Your task to perform on an android device: install app "Adobe Acrobat Reader: Edit PDF" Image 0: 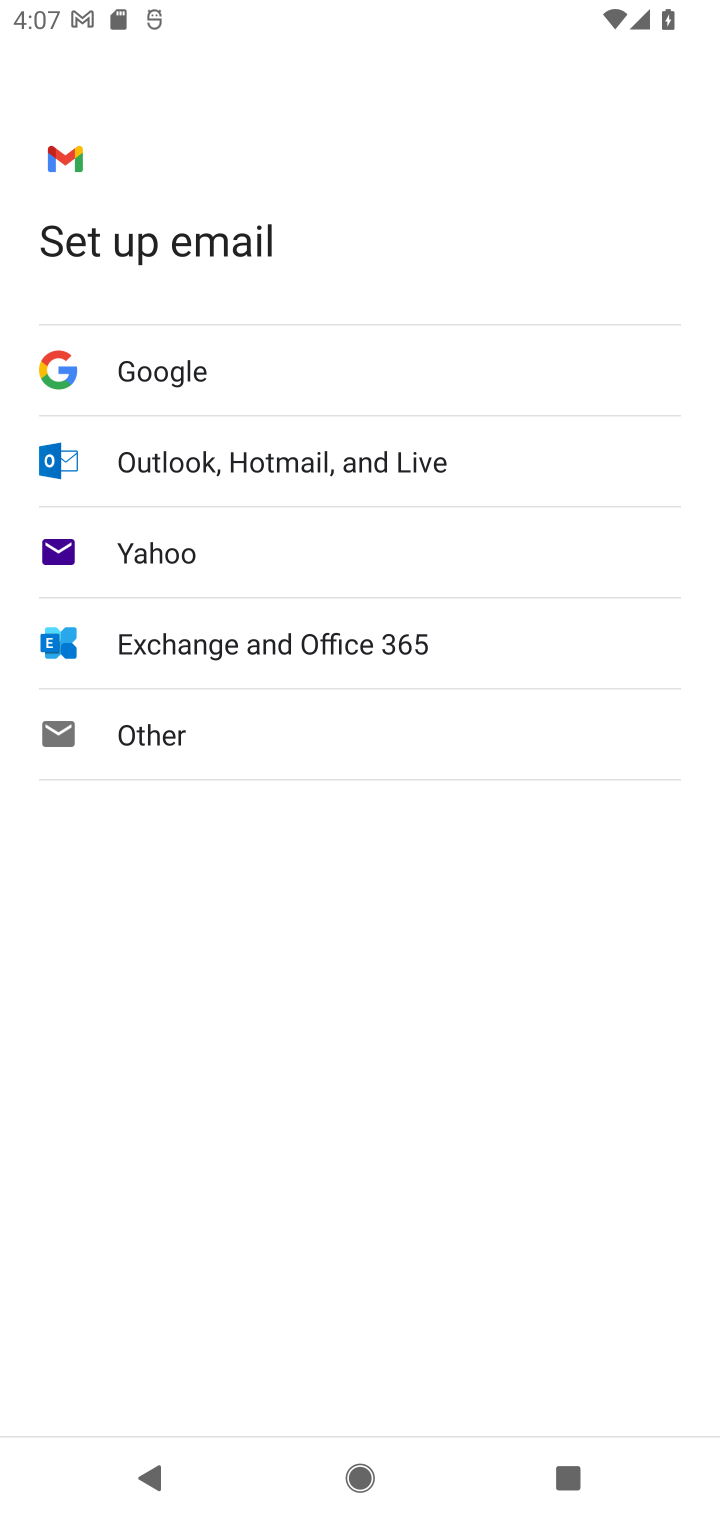
Step 0: press home button
Your task to perform on an android device: install app "Adobe Acrobat Reader: Edit PDF" Image 1: 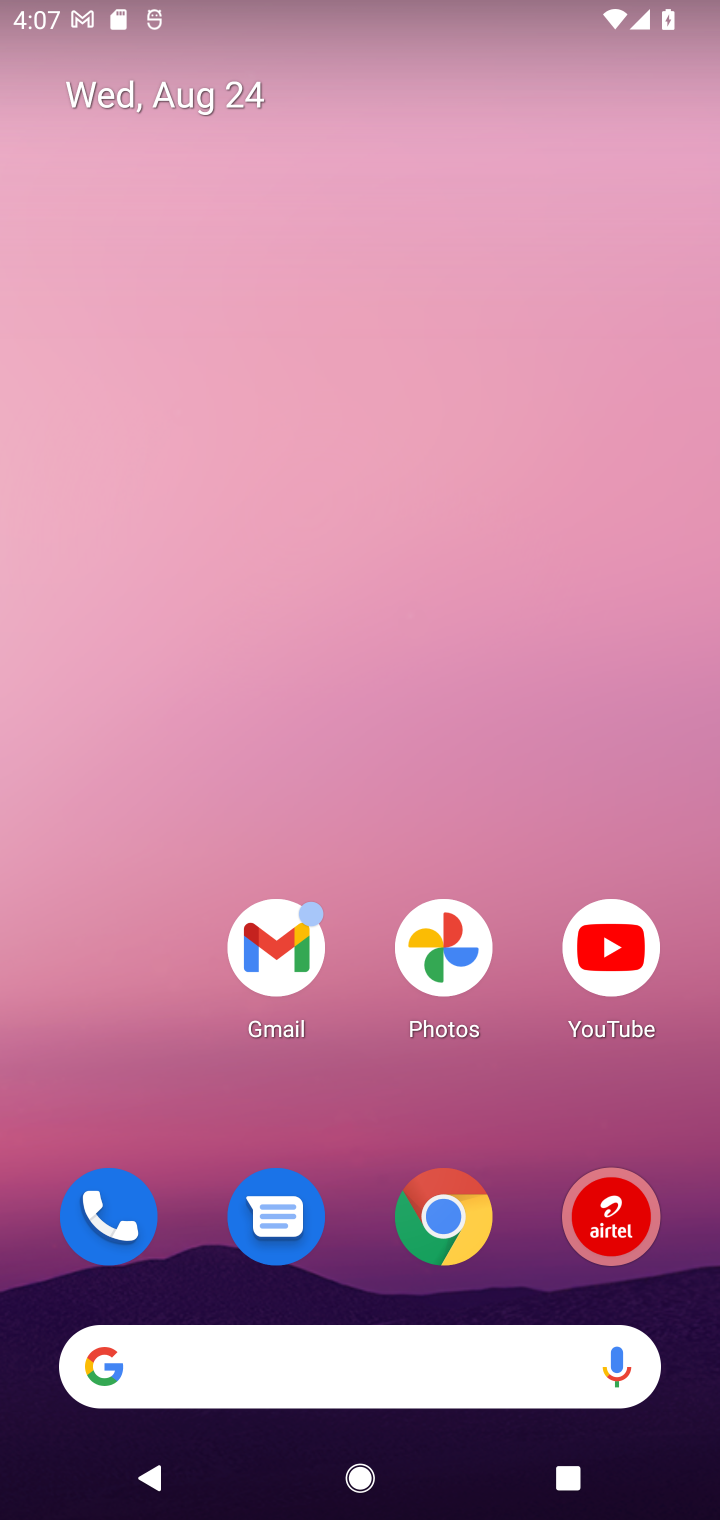
Step 1: drag from (342, 987) to (411, 193)
Your task to perform on an android device: install app "Adobe Acrobat Reader: Edit PDF" Image 2: 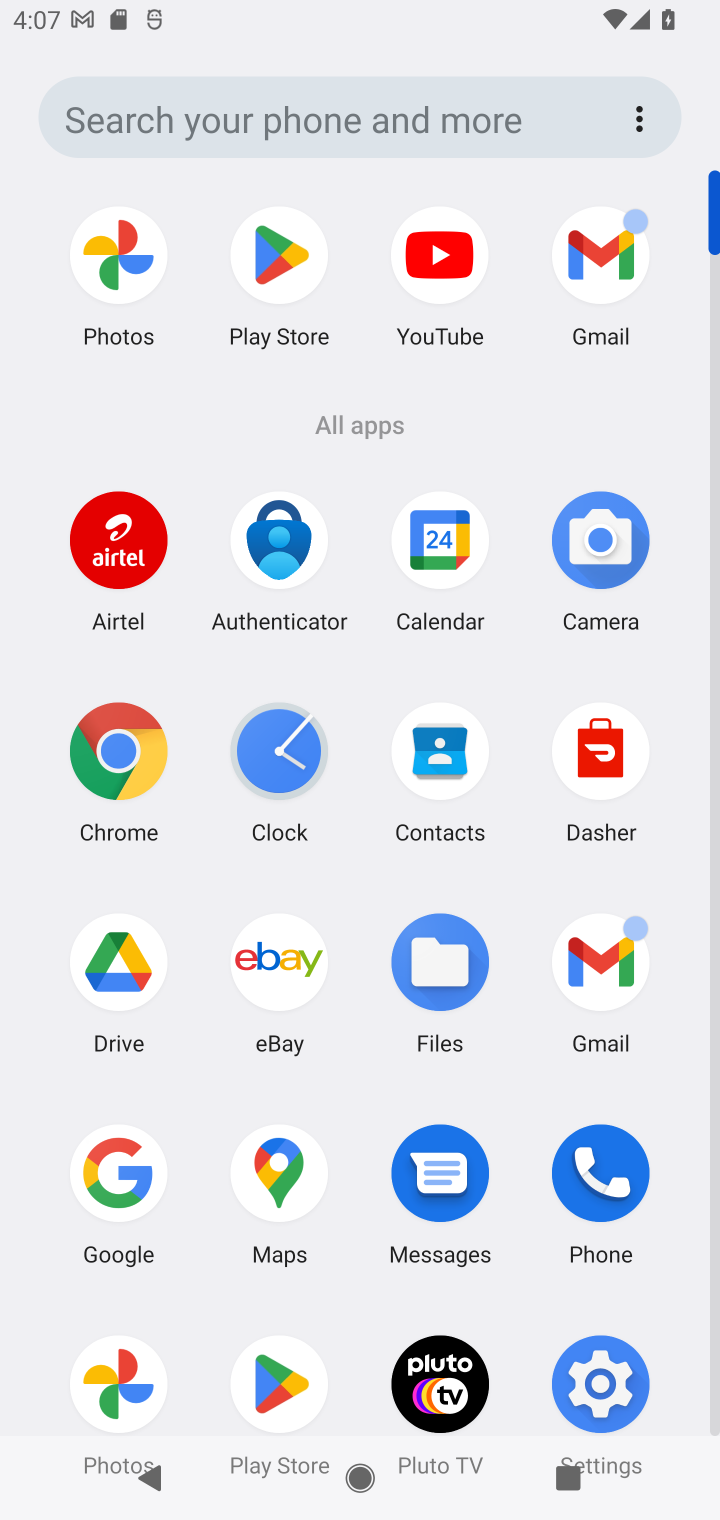
Step 2: click (306, 242)
Your task to perform on an android device: install app "Adobe Acrobat Reader: Edit PDF" Image 3: 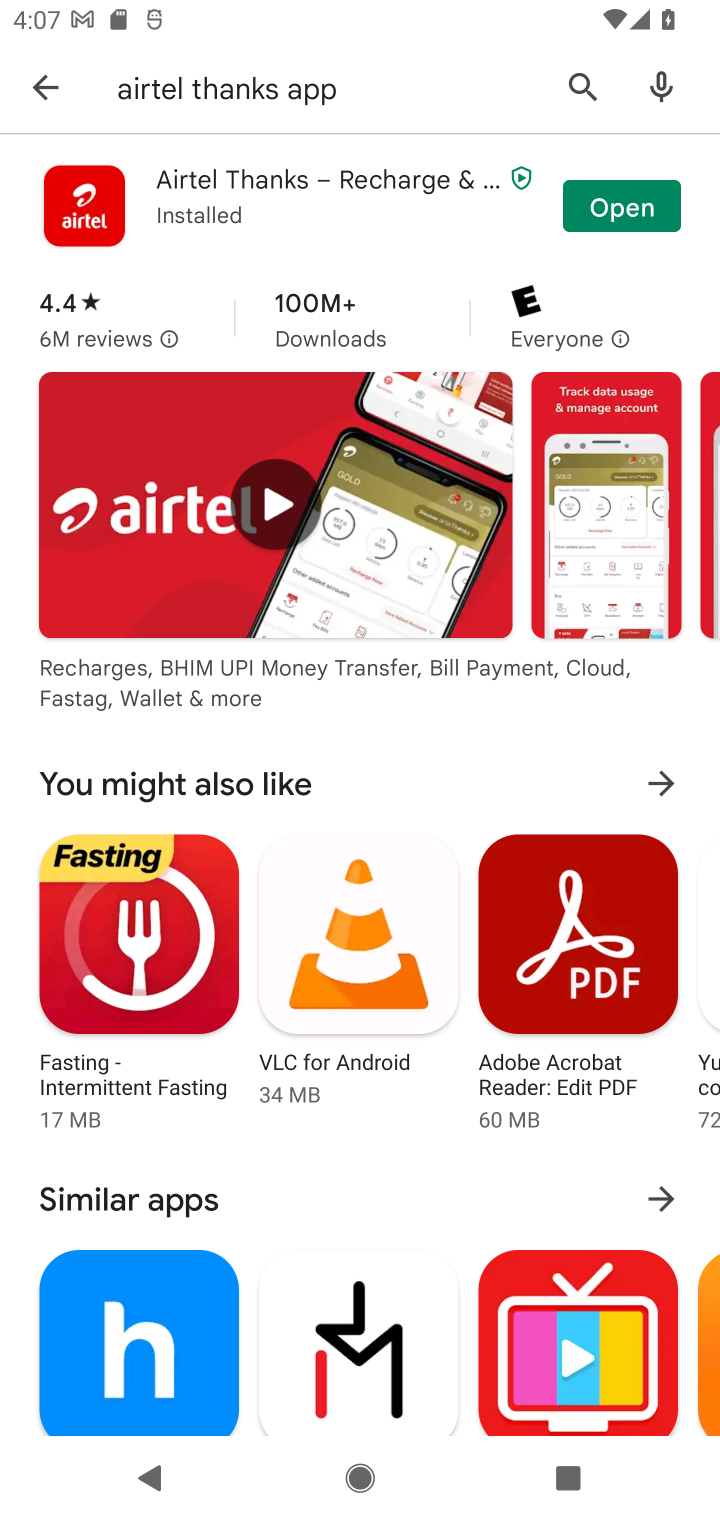
Step 3: click (593, 72)
Your task to perform on an android device: install app "Adobe Acrobat Reader: Edit PDF" Image 4: 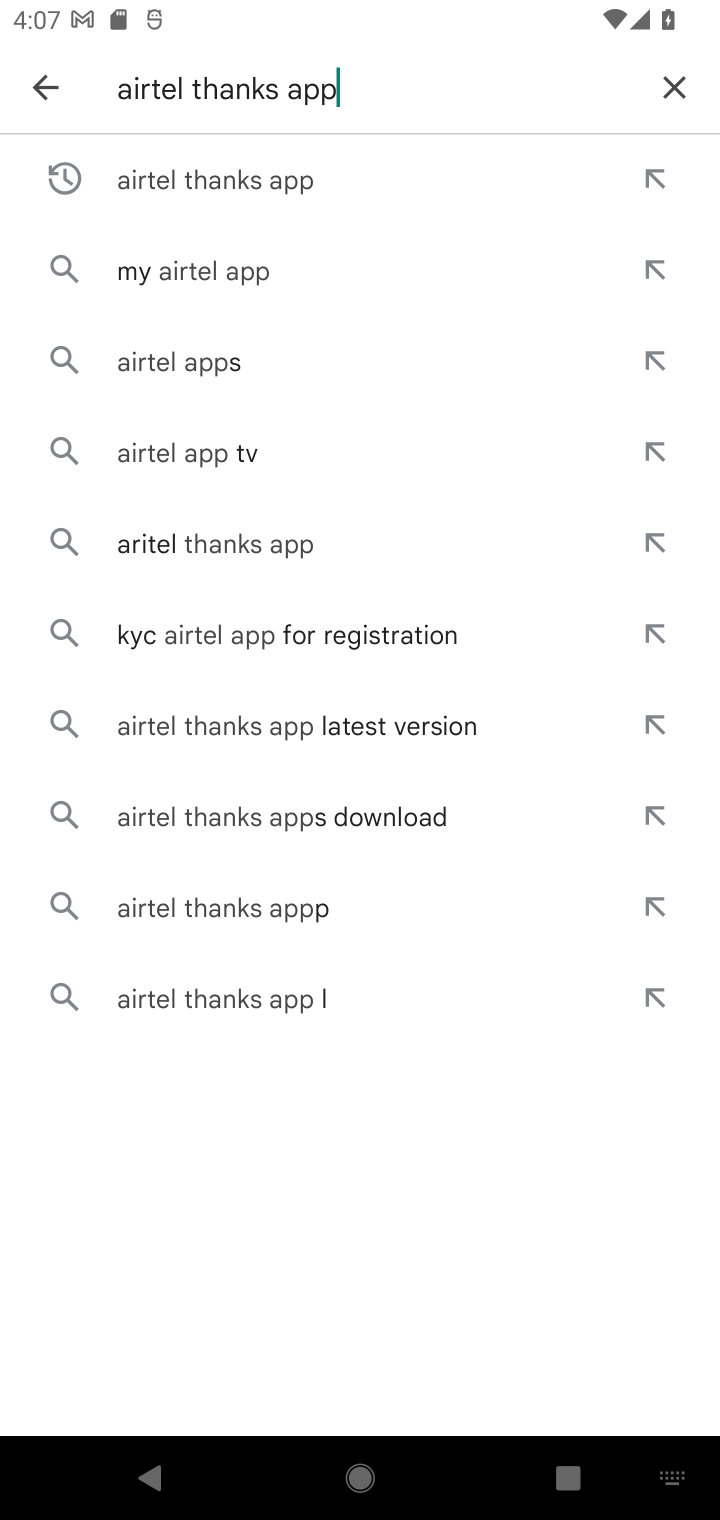
Step 4: click (652, 79)
Your task to perform on an android device: install app "Adobe Acrobat Reader: Edit PDF" Image 5: 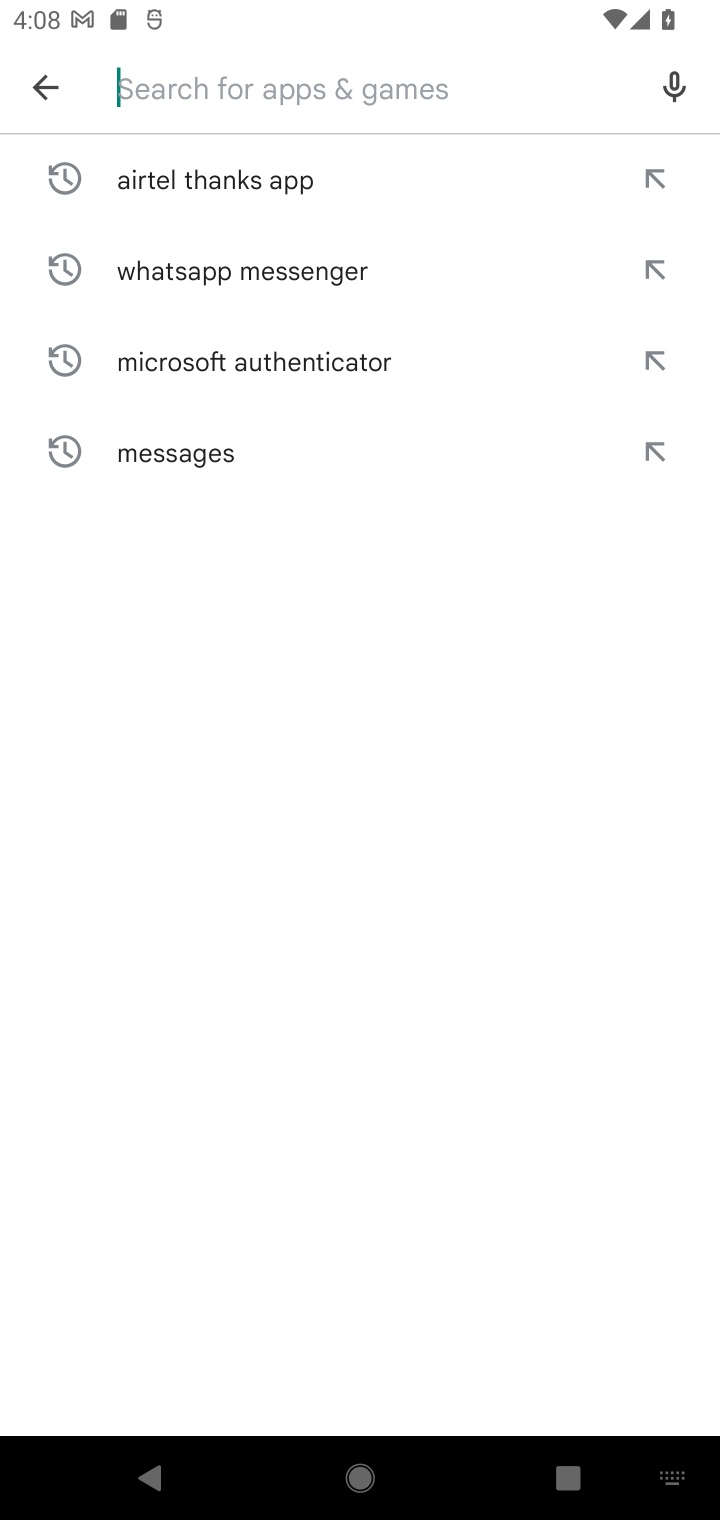
Step 5: type "Adobe Acrobat Reader: Edit PDF"
Your task to perform on an android device: install app "Adobe Acrobat Reader: Edit PDF" Image 6: 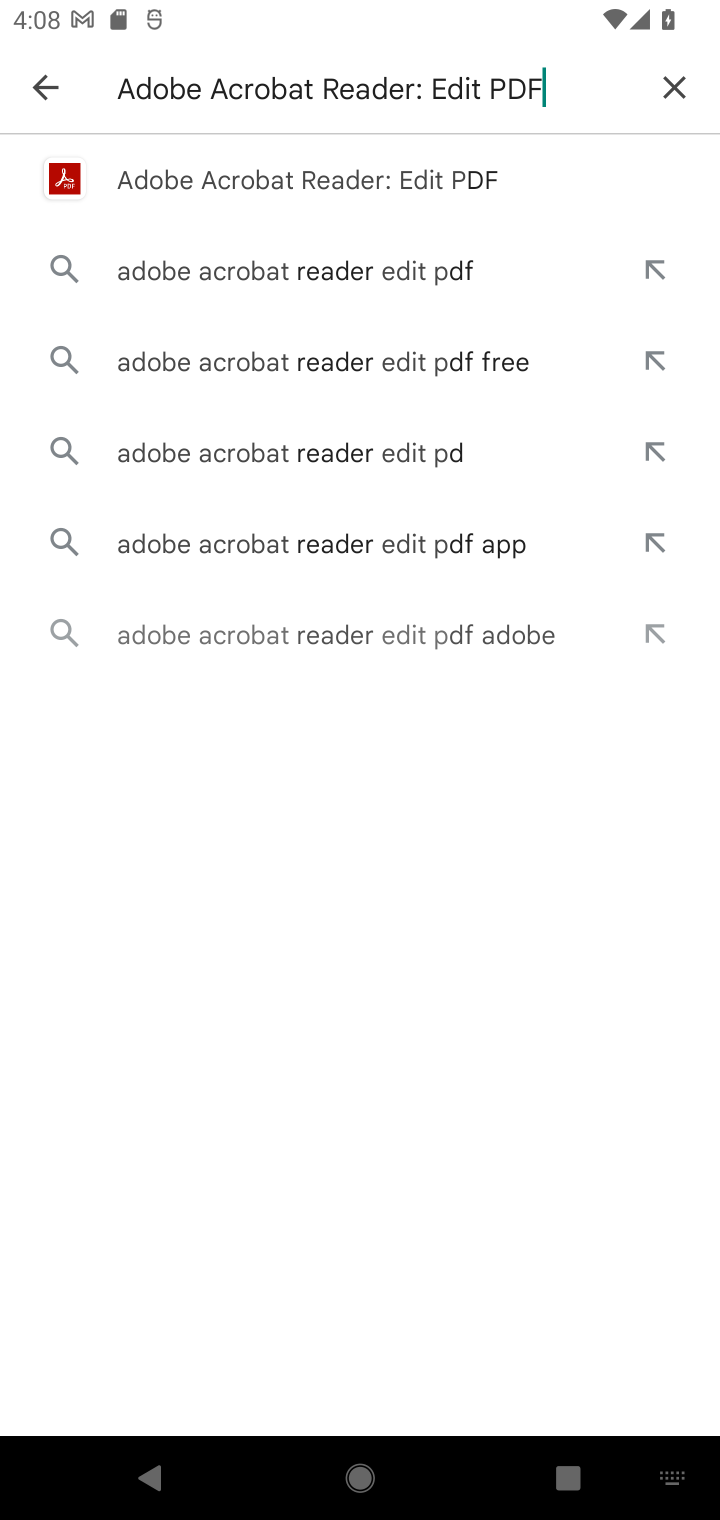
Step 6: type ""
Your task to perform on an android device: install app "Adobe Acrobat Reader: Edit PDF" Image 7: 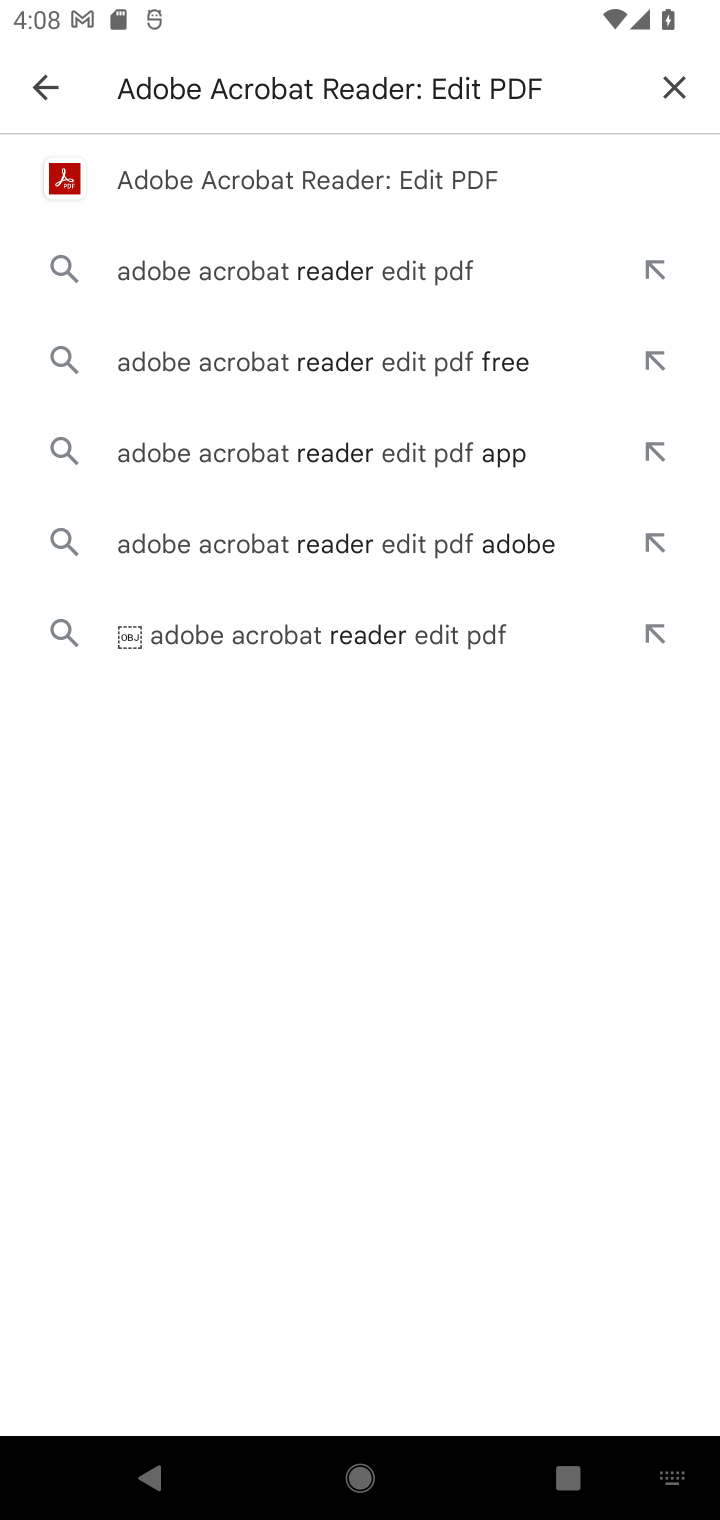
Step 7: click (283, 178)
Your task to perform on an android device: install app "Adobe Acrobat Reader: Edit PDF" Image 8: 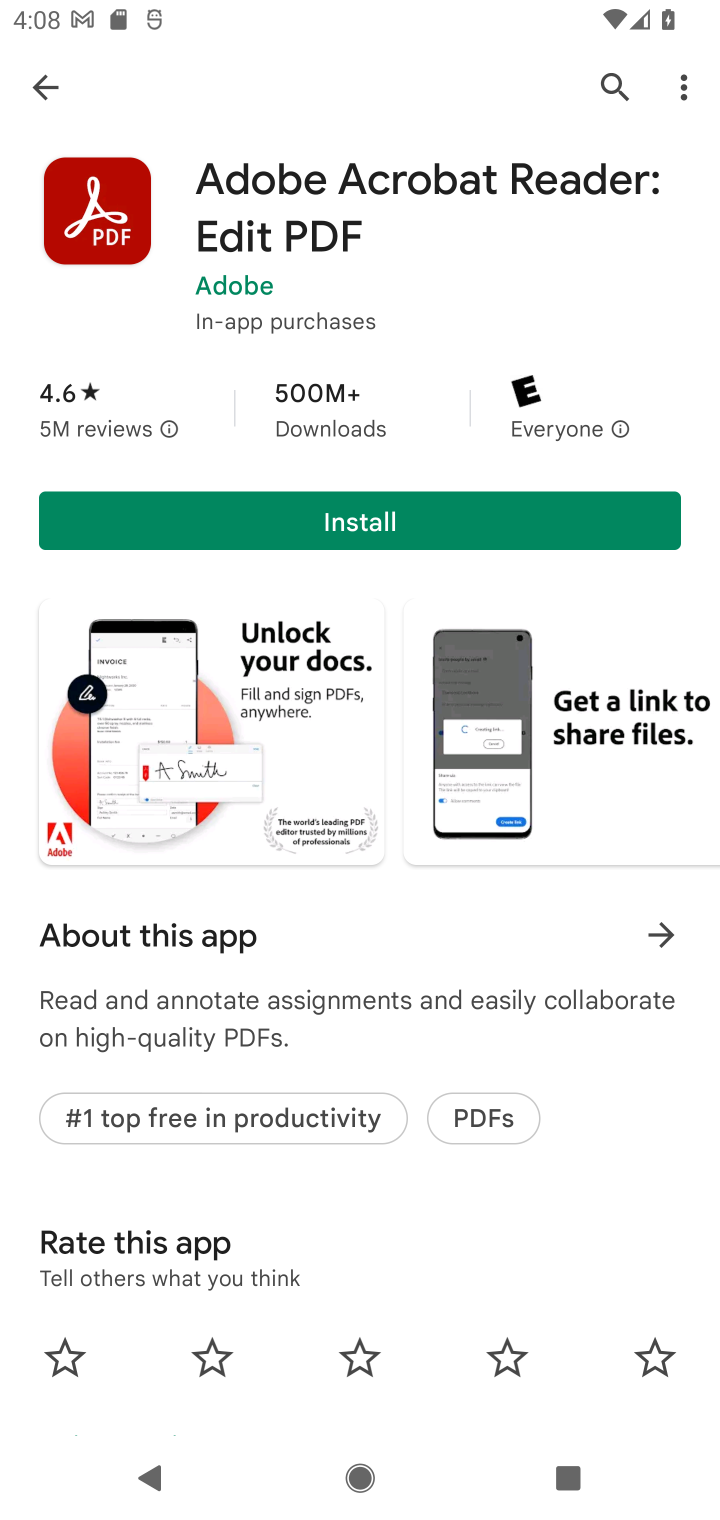
Step 8: click (343, 499)
Your task to perform on an android device: install app "Adobe Acrobat Reader: Edit PDF" Image 9: 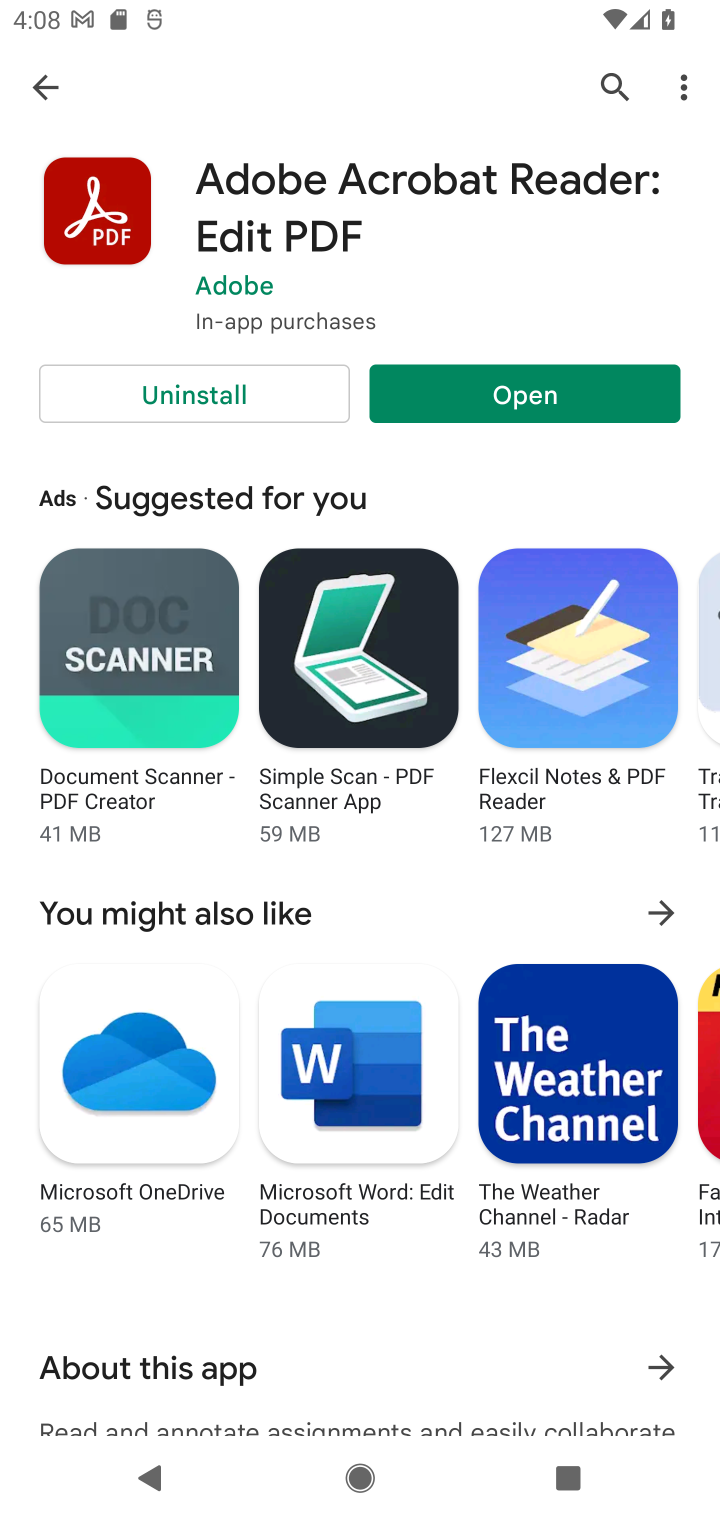
Step 9: task complete